Your task to perform on an android device: remove spam from my inbox in the gmail app Image 0: 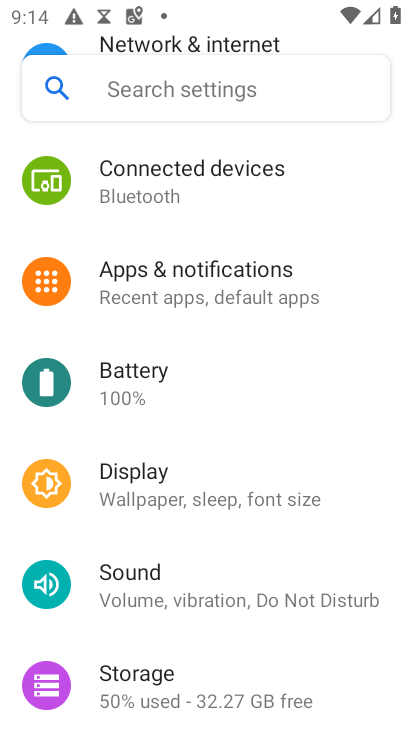
Step 0: press home button
Your task to perform on an android device: remove spam from my inbox in the gmail app Image 1: 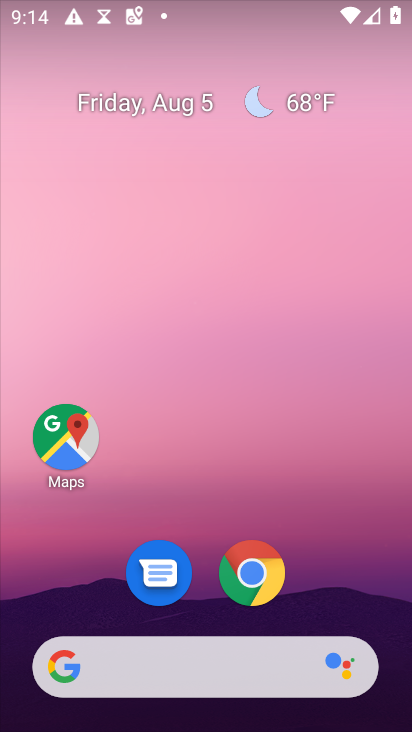
Step 1: drag from (203, 672) to (273, 92)
Your task to perform on an android device: remove spam from my inbox in the gmail app Image 2: 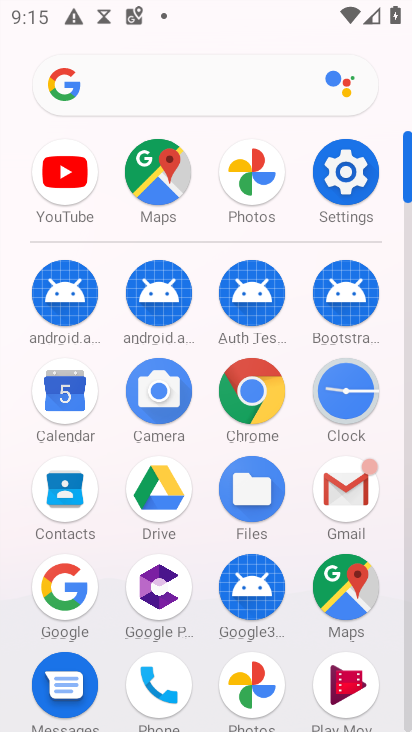
Step 2: click (348, 487)
Your task to perform on an android device: remove spam from my inbox in the gmail app Image 3: 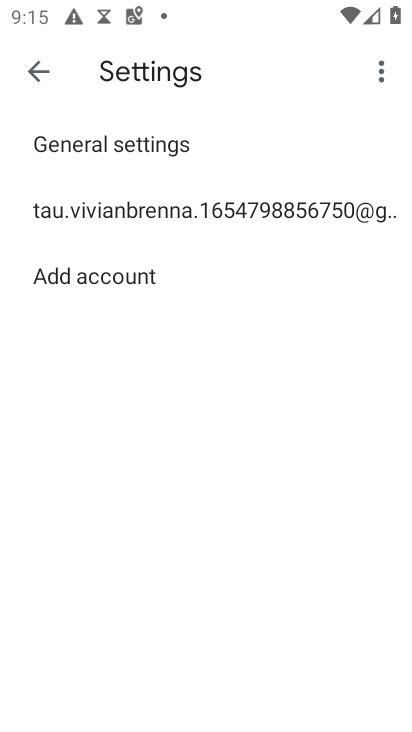
Step 3: press back button
Your task to perform on an android device: remove spam from my inbox in the gmail app Image 4: 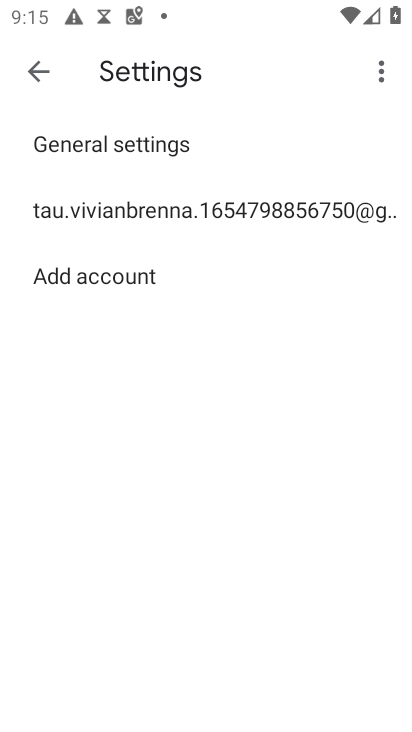
Step 4: press back button
Your task to perform on an android device: remove spam from my inbox in the gmail app Image 5: 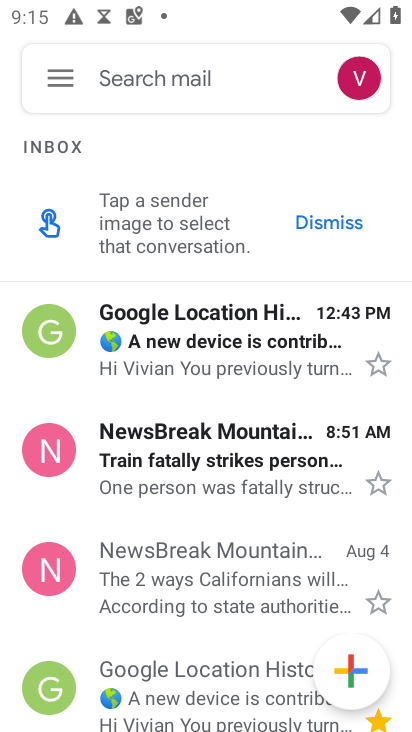
Step 5: click (62, 87)
Your task to perform on an android device: remove spam from my inbox in the gmail app Image 6: 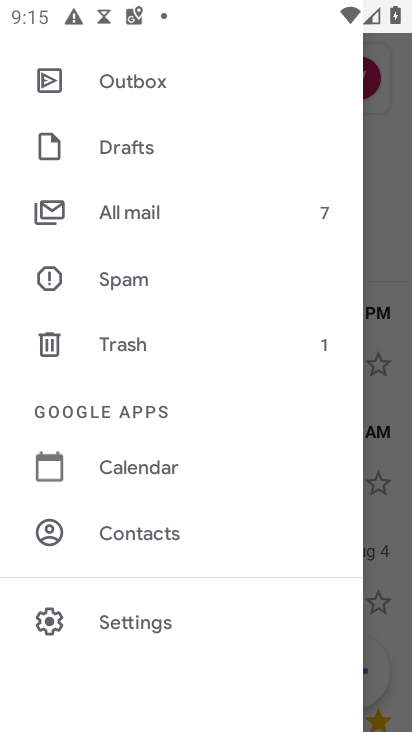
Step 6: click (156, 291)
Your task to perform on an android device: remove spam from my inbox in the gmail app Image 7: 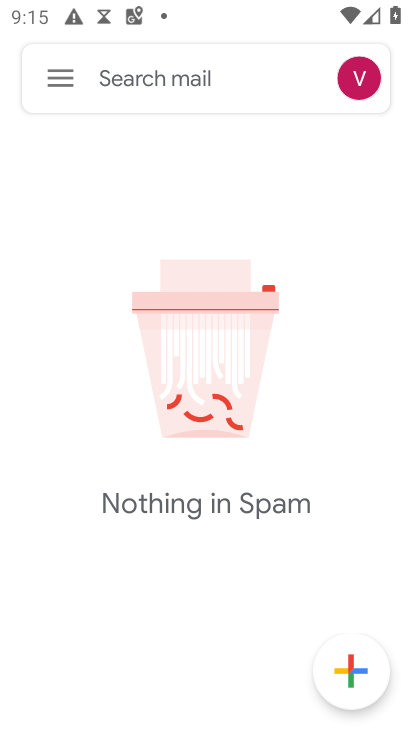
Step 7: task complete